Your task to perform on an android device: search for starred emails in the gmail app Image 0: 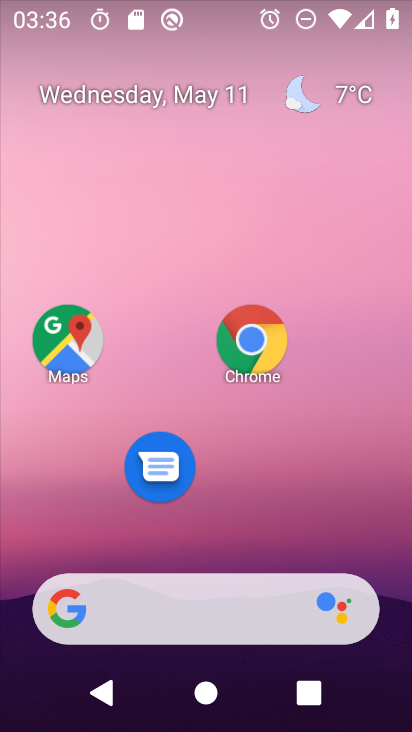
Step 0: drag from (152, 614) to (263, 143)
Your task to perform on an android device: search for starred emails in the gmail app Image 1: 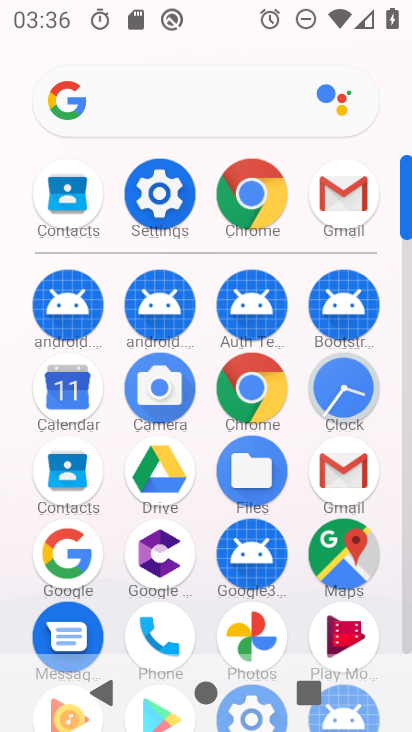
Step 1: click (333, 200)
Your task to perform on an android device: search for starred emails in the gmail app Image 2: 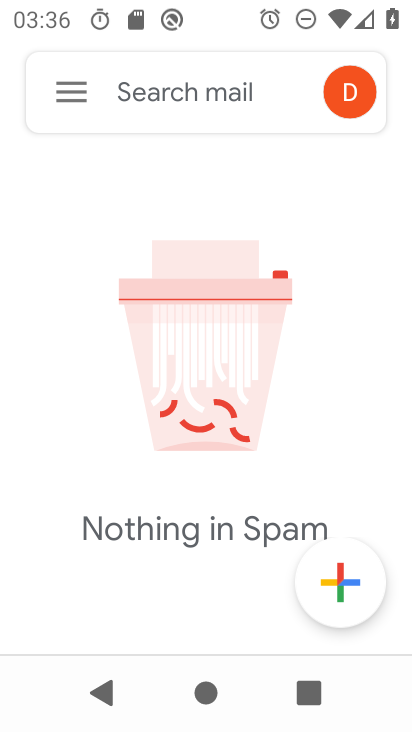
Step 2: click (74, 93)
Your task to perform on an android device: search for starred emails in the gmail app Image 3: 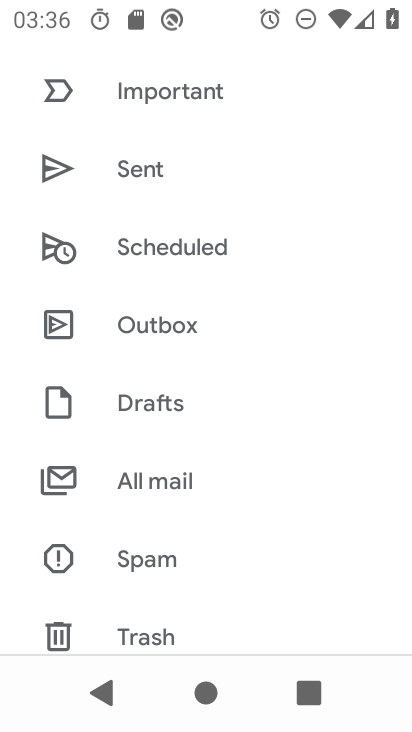
Step 3: drag from (266, 171) to (215, 631)
Your task to perform on an android device: search for starred emails in the gmail app Image 4: 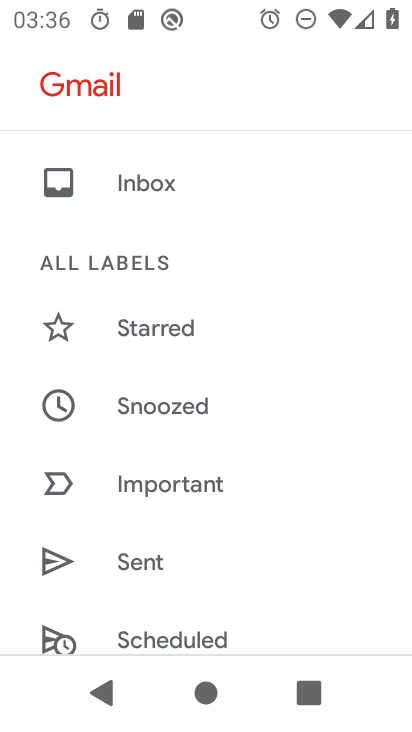
Step 4: click (156, 323)
Your task to perform on an android device: search for starred emails in the gmail app Image 5: 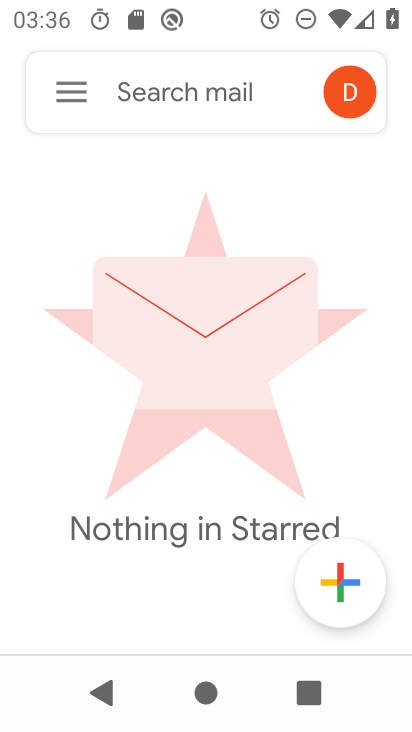
Step 5: task complete